Your task to perform on an android device: Show me popular videos on Youtube Image 0: 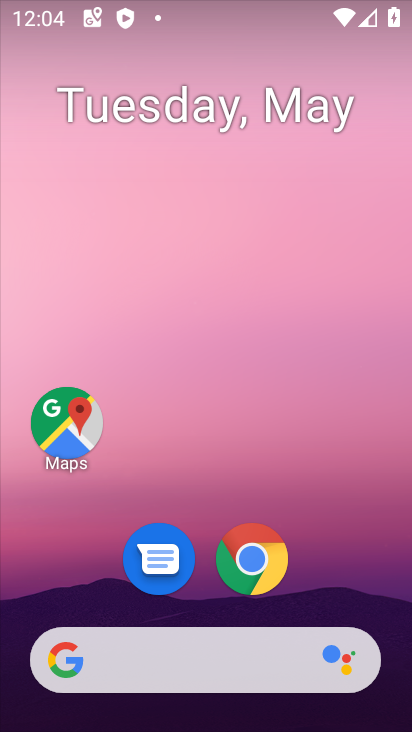
Step 0: click (370, 565)
Your task to perform on an android device: Show me popular videos on Youtube Image 1: 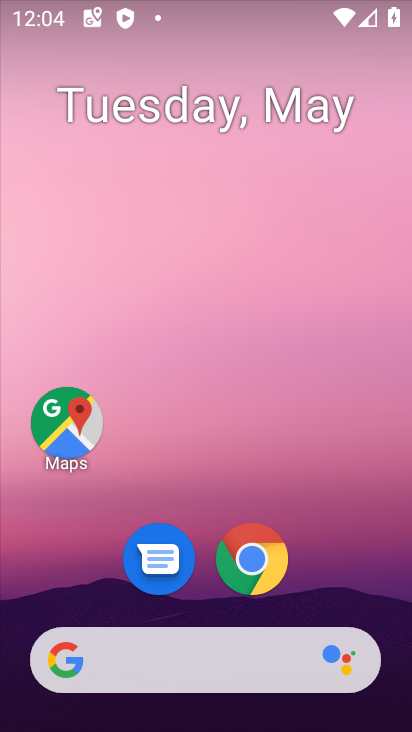
Step 1: drag from (370, 565) to (355, 46)
Your task to perform on an android device: Show me popular videos on Youtube Image 2: 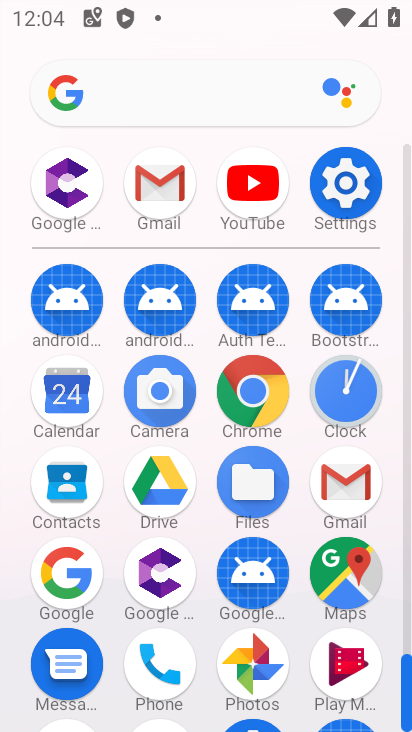
Step 2: click (264, 219)
Your task to perform on an android device: Show me popular videos on Youtube Image 3: 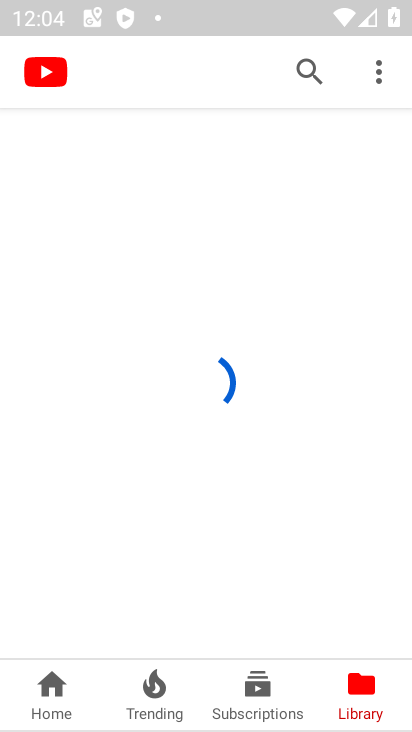
Step 3: click (59, 676)
Your task to perform on an android device: Show me popular videos on Youtube Image 4: 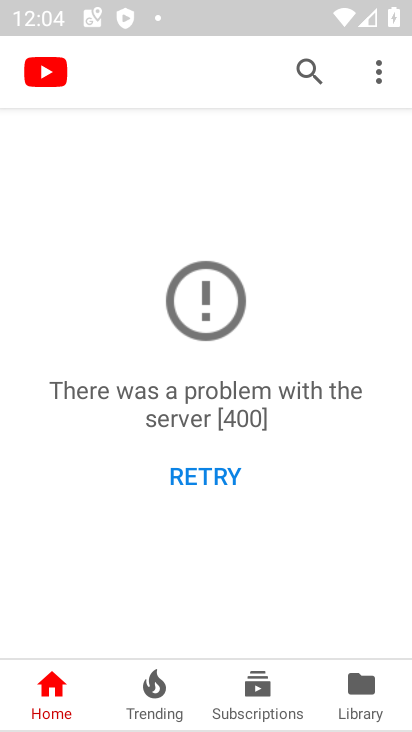
Step 4: click (160, 693)
Your task to perform on an android device: Show me popular videos on Youtube Image 5: 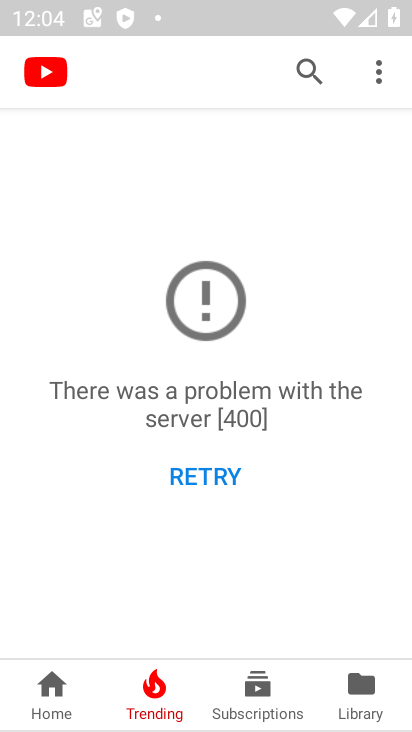
Step 5: task complete